Your task to perform on an android device: turn on the 24-hour format for clock Image 0: 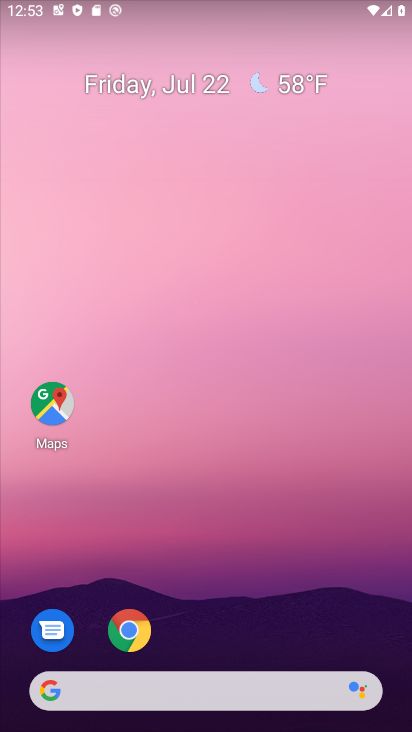
Step 0: drag from (278, 196) to (286, 57)
Your task to perform on an android device: turn on the 24-hour format for clock Image 1: 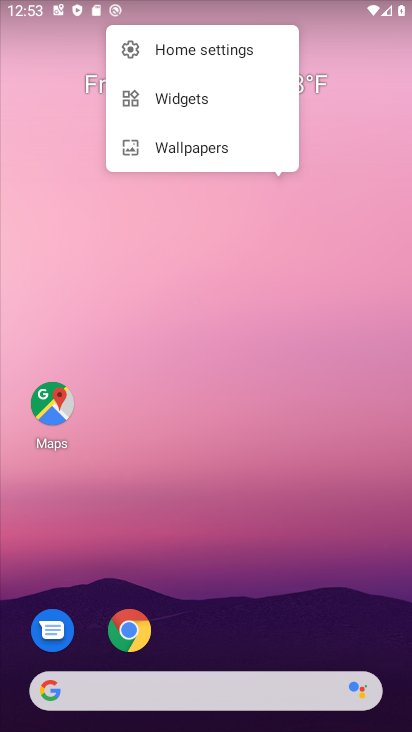
Step 1: click (326, 539)
Your task to perform on an android device: turn on the 24-hour format for clock Image 2: 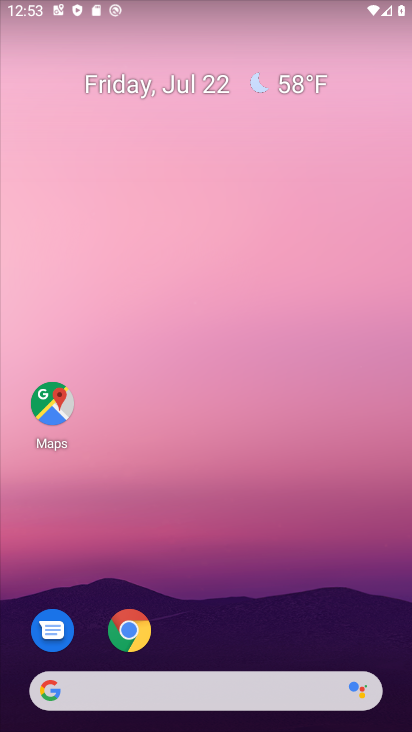
Step 2: drag from (278, 620) to (322, 150)
Your task to perform on an android device: turn on the 24-hour format for clock Image 3: 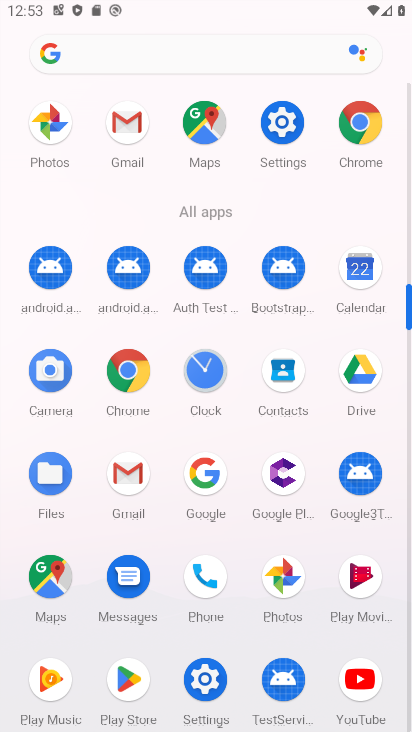
Step 3: click (204, 372)
Your task to perform on an android device: turn on the 24-hour format for clock Image 4: 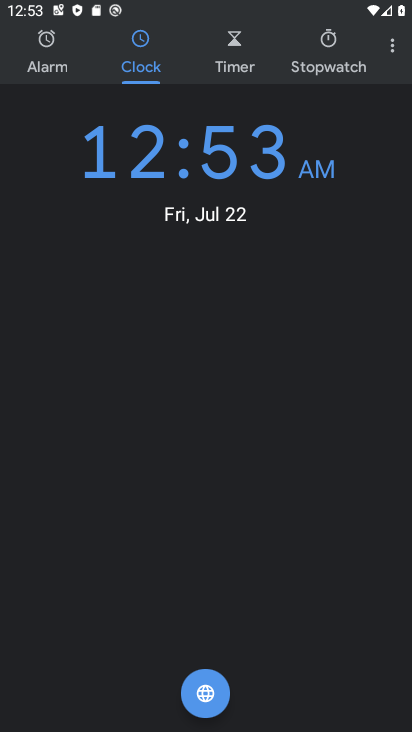
Step 4: click (390, 46)
Your task to perform on an android device: turn on the 24-hour format for clock Image 5: 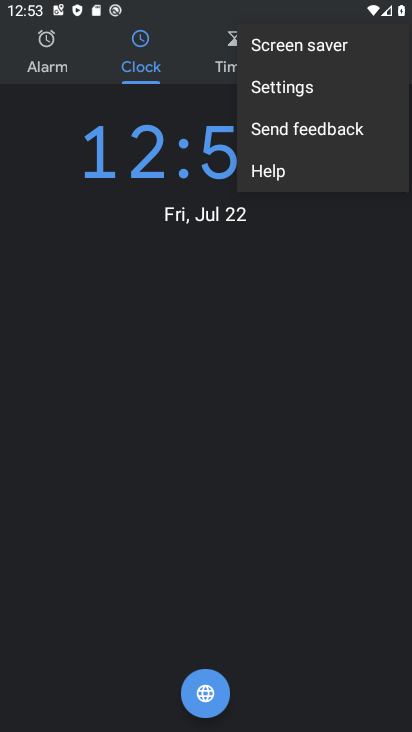
Step 5: click (280, 91)
Your task to perform on an android device: turn on the 24-hour format for clock Image 6: 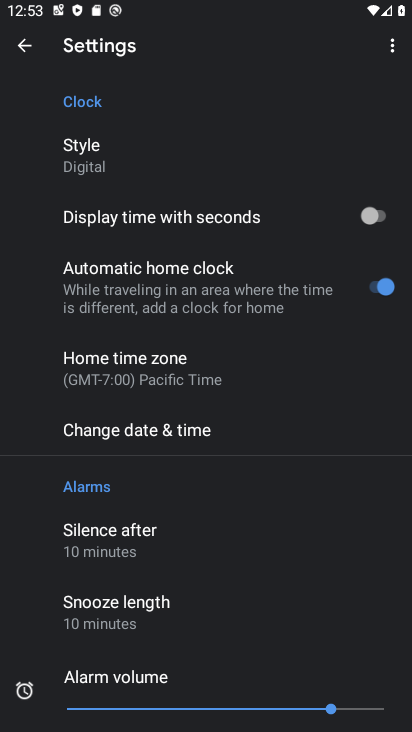
Step 6: click (169, 425)
Your task to perform on an android device: turn on the 24-hour format for clock Image 7: 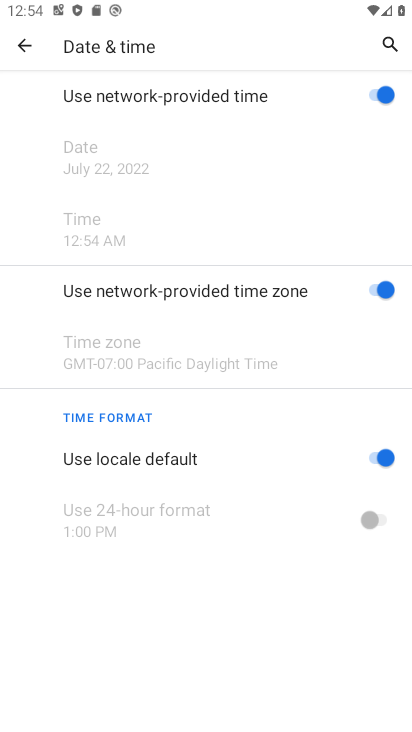
Step 7: click (324, 459)
Your task to perform on an android device: turn on the 24-hour format for clock Image 8: 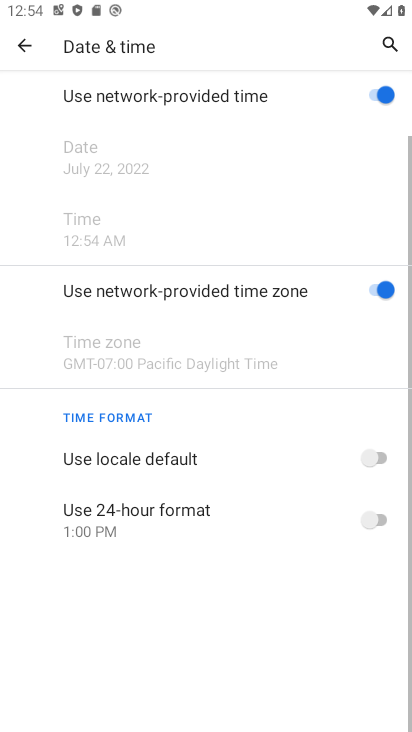
Step 8: click (373, 521)
Your task to perform on an android device: turn on the 24-hour format for clock Image 9: 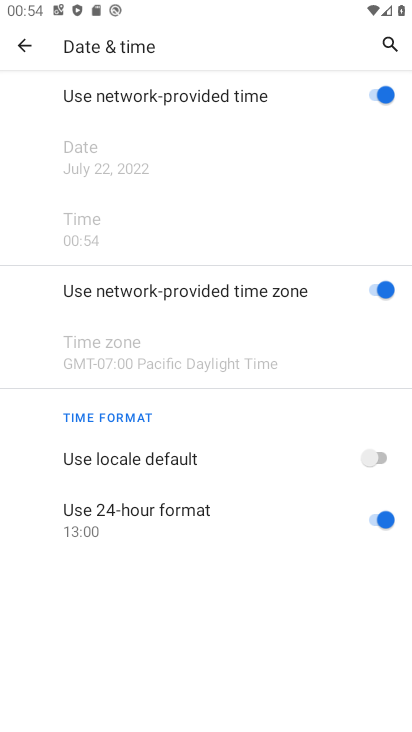
Step 9: task complete